Your task to perform on an android device: add a contact in the contacts app Image 0: 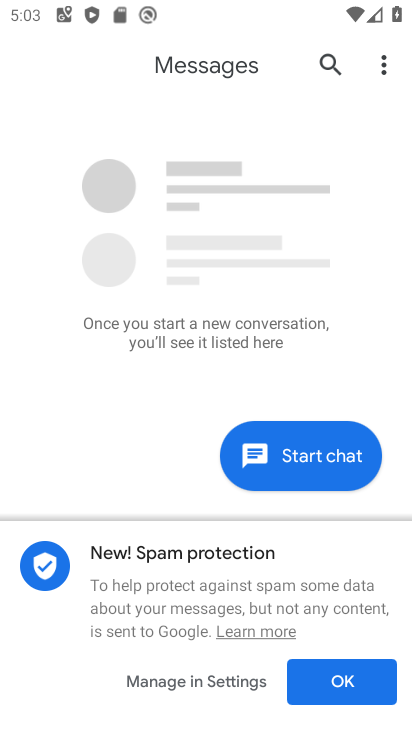
Step 0: press back button
Your task to perform on an android device: add a contact in the contacts app Image 1: 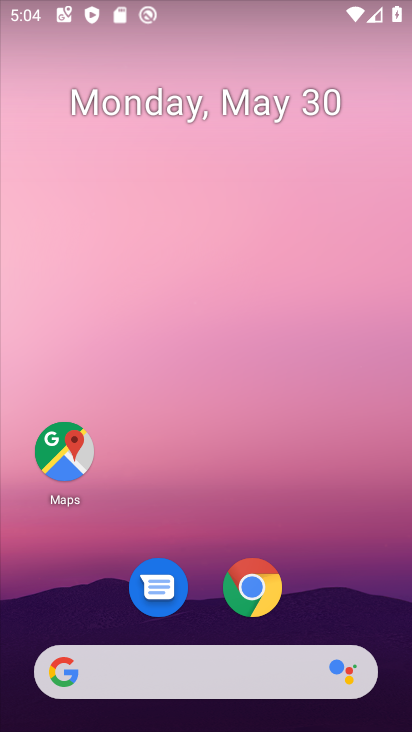
Step 1: drag from (337, 611) to (305, 267)
Your task to perform on an android device: add a contact in the contacts app Image 2: 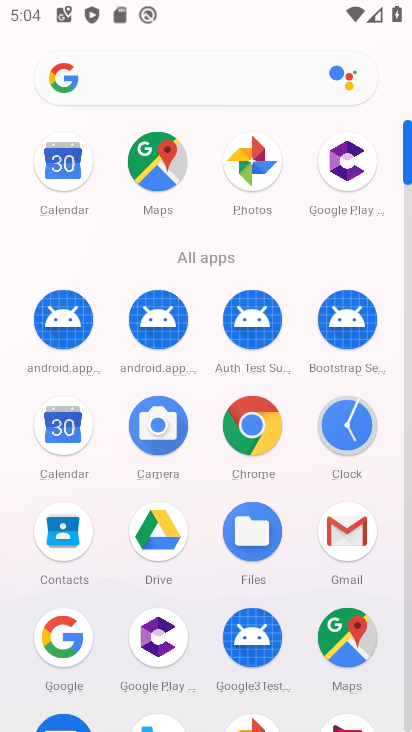
Step 2: click (66, 533)
Your task to perform on an android device: add a contact in the contacts app Image 3: 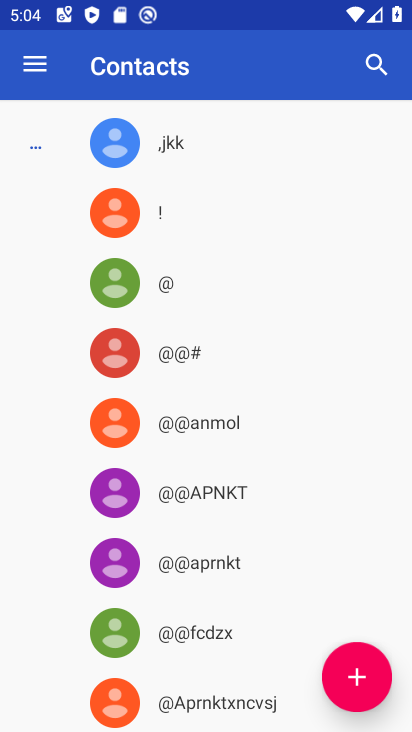
Step 3: click (358, 676)
Your task to perform on an android device: add a contact in the contacts app Image 4: 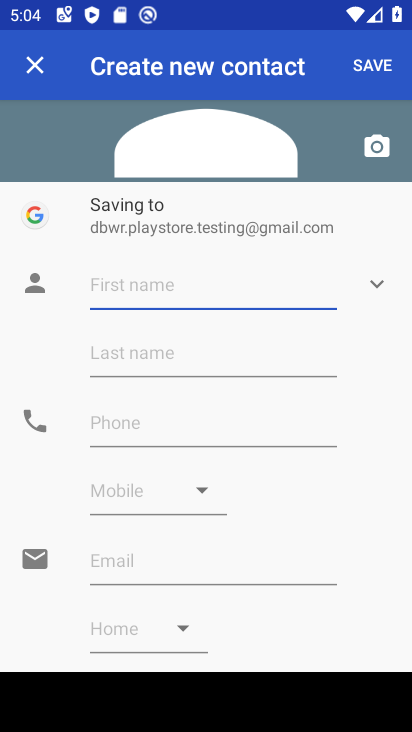
Step 4: click (234, 288)
Your task to perform on an android device: add a contact in the contacts app Image 5: 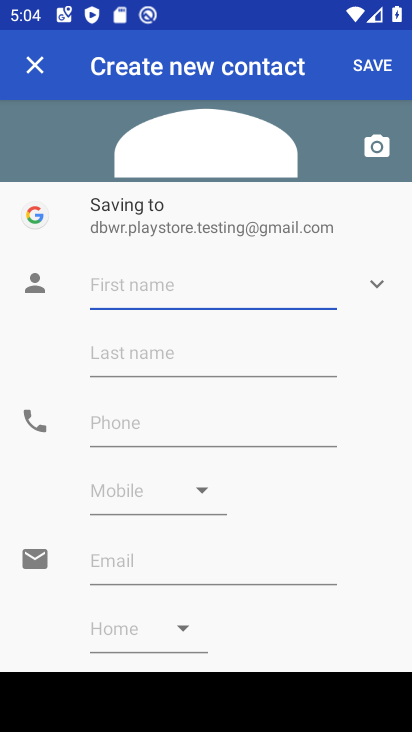
Step 5: type "Yazuvendra"
Your task to perform on an android device: add a contact in the contacts app Image 6: 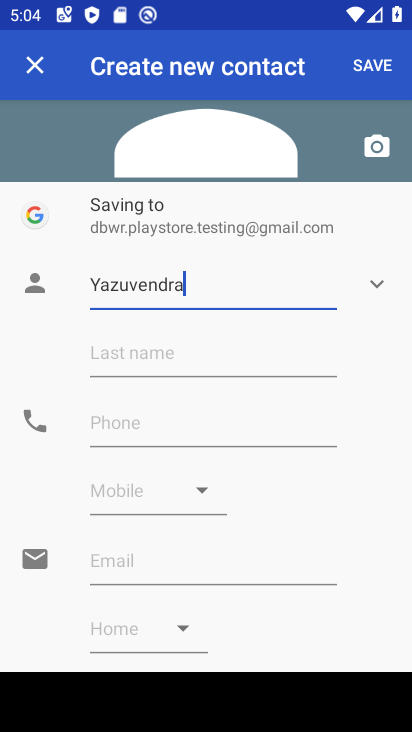
Step 6: click (161, 364)
Your task to perform on an android device: add a contact in the contacts app Image 7: 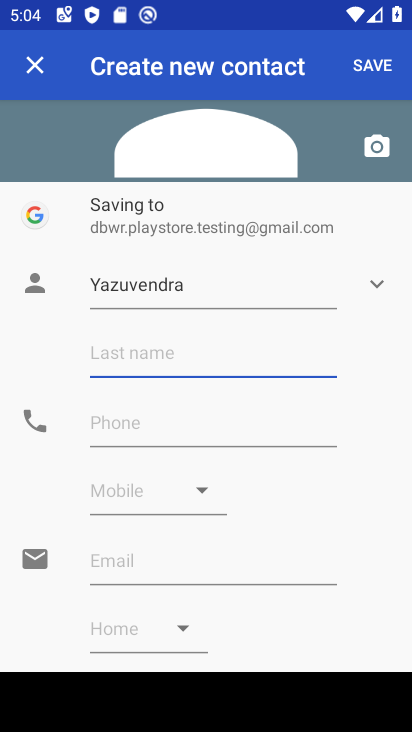
Step 7: type "Chahal"
Your task to perform on an android device: add a contact in the contacts app Image 8: 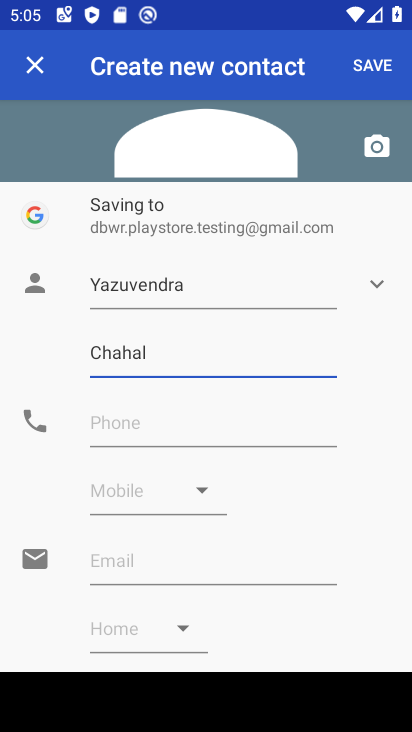
Step 8: click (224, 420)
Your task to perform on an android device: add a contact in the contacts app Image 9: 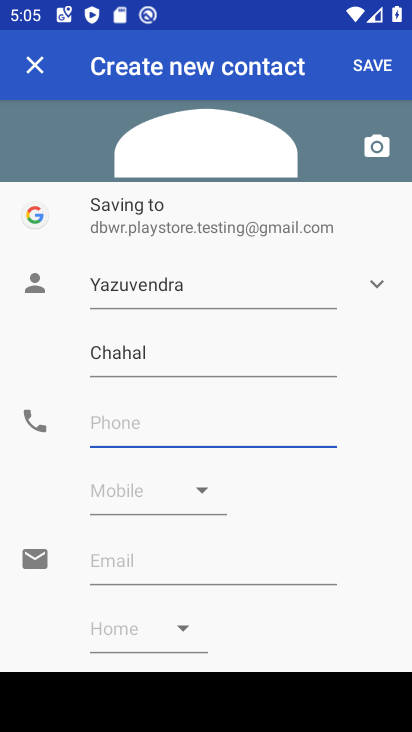
Step 9: click (153, 417)
Your task to perform on an android device: add a contact in the contacts app Image 10: 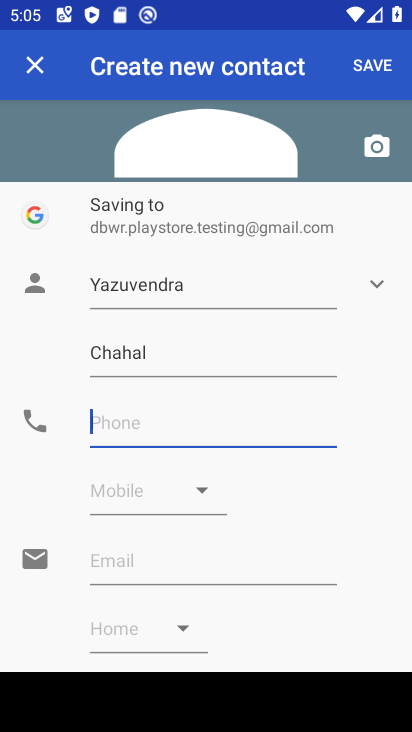
Step 10: type "09988776655"
Your task to perform on an android device: add a contact in the contacts app Image 11: 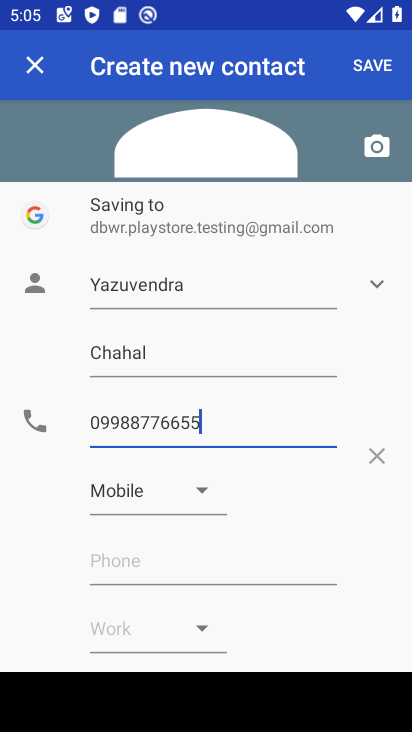
Step 11: type ""
Your task to perform on an android device: add a contact in the contacts app Image 12: 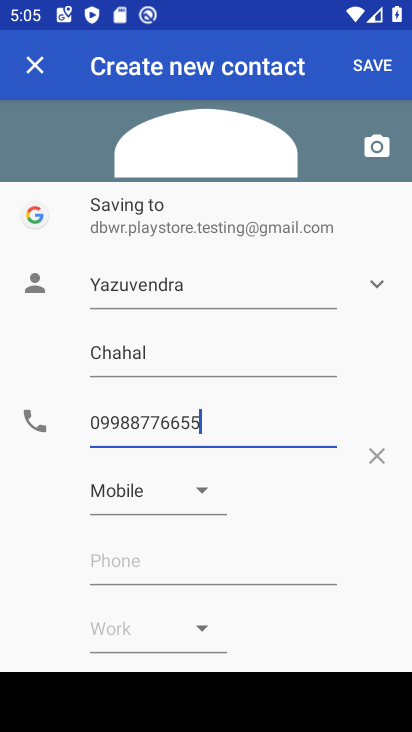
Step 12: click (375, 61)
Your task to perform on an android device: add a contact in the contacts app Image 13: 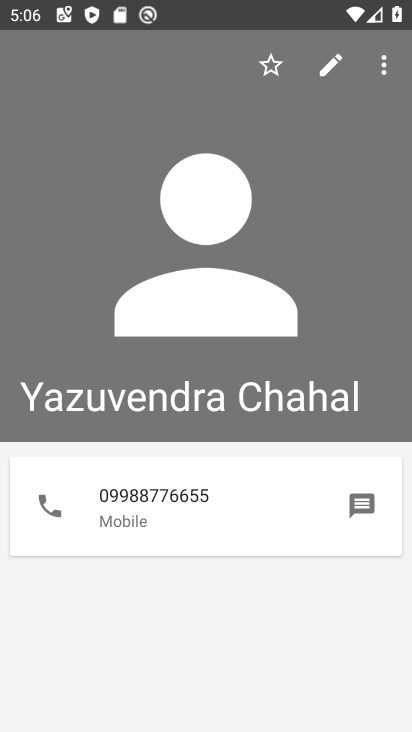
Step 13: task complete